Your task to perform on an android device: check data usage Image 0: 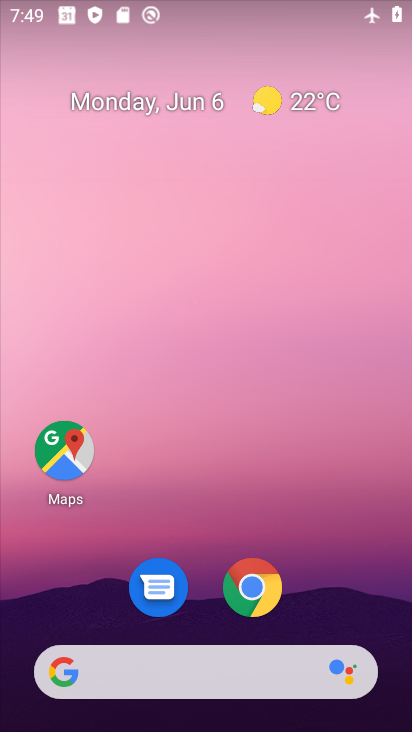
Step 0: drag from (253, 642) to (240, 268)
Your task to perform on an android device: check data usage Image 1: 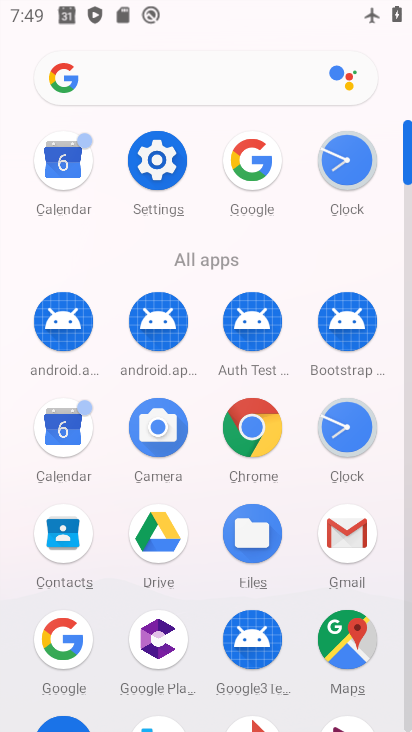
Step 1: click (154, 173)
Your task to perform on an android device: check data usage Image 2: 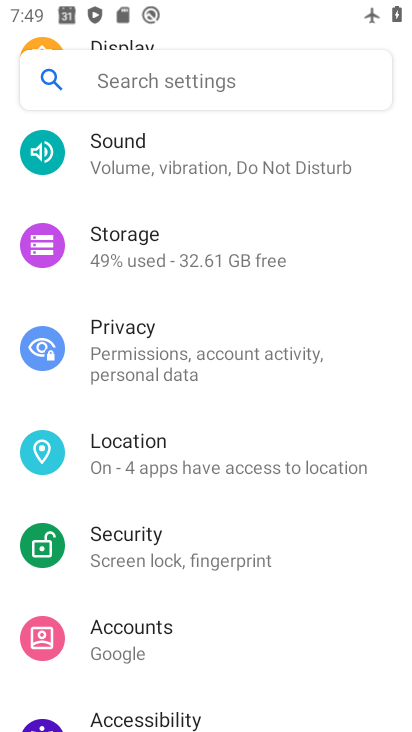
Step 2: drag from (193, 124) to (235, 471)
Your task to perform on an android device: check data usage Image 3: 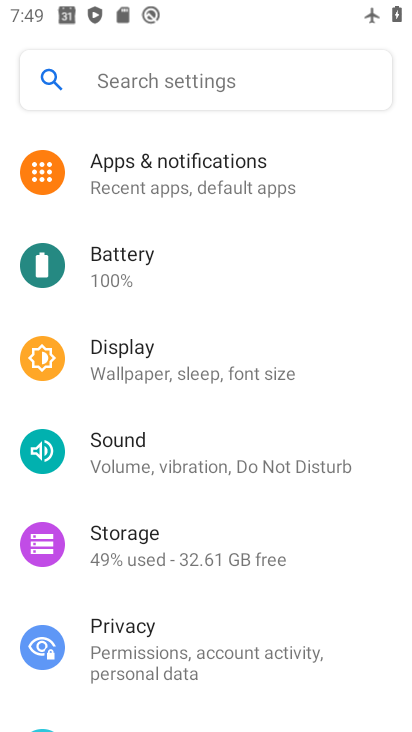
Step 3: click (191, 174)
Your task to perform on an android device: check data usage Image 4: 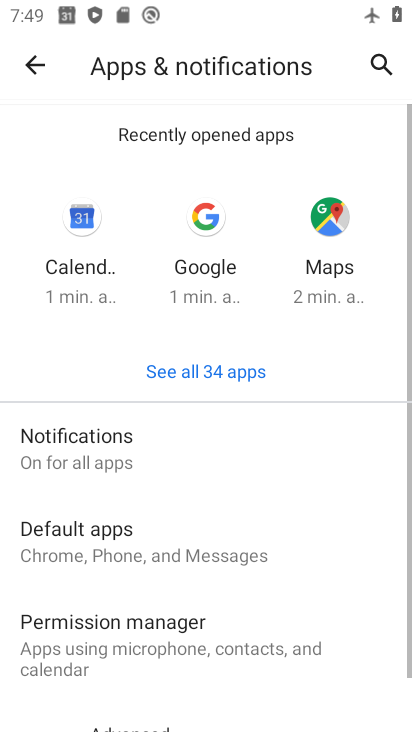
Step 4: press back button
Your task to perform on an android device: check data usage Image 5: 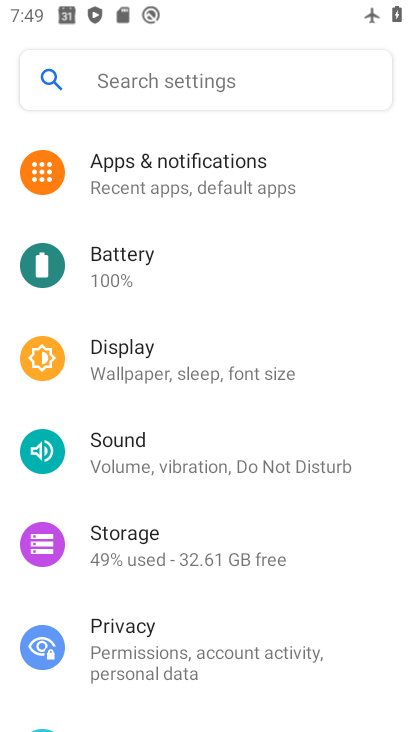
Step 5: drag from (143, 152) to (223, 516)
Your task to perform on an android device: check data usage Image 6: 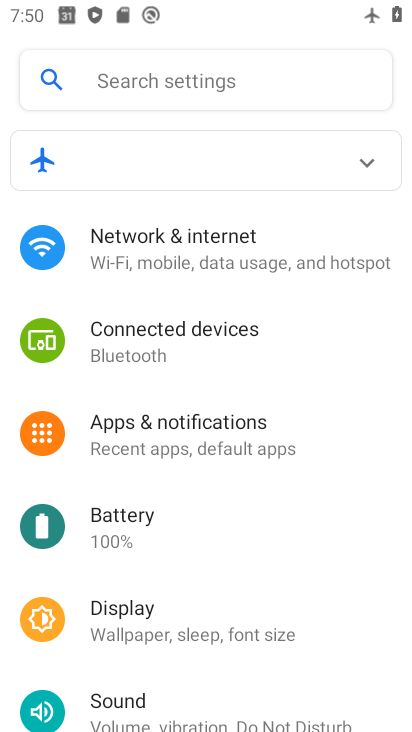
Step 6: click (184, 253)
Your task to perform on an android device: check data usage Image 7: 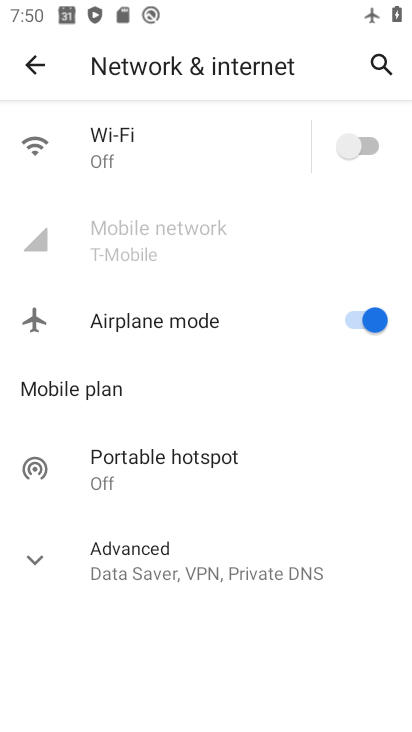
Step 7: click (360, 316)
Your task to perform on an android device: check data usage Image 8: 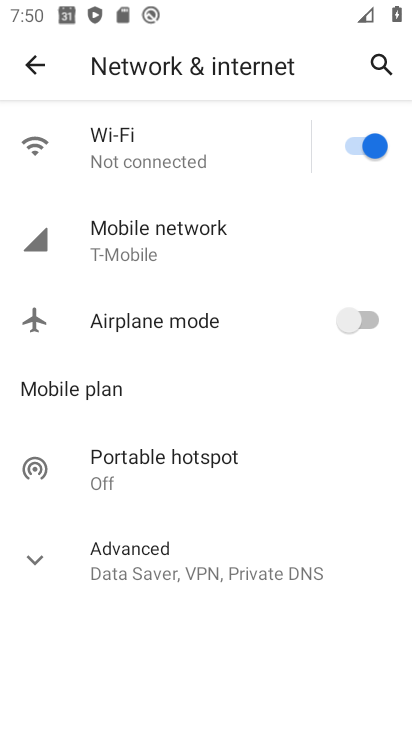
Step 8: click (135, 249)
Your task to perform on an android device: check data usage Image 9: 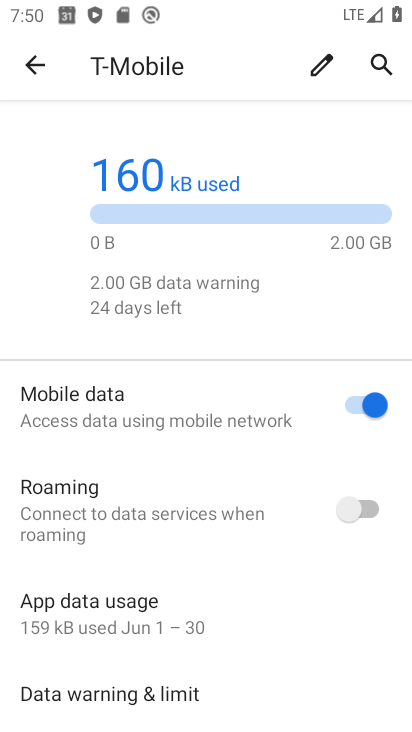
Step 9: task complete